Your task to perform on an android device: create a new album in the google photos Image 0: 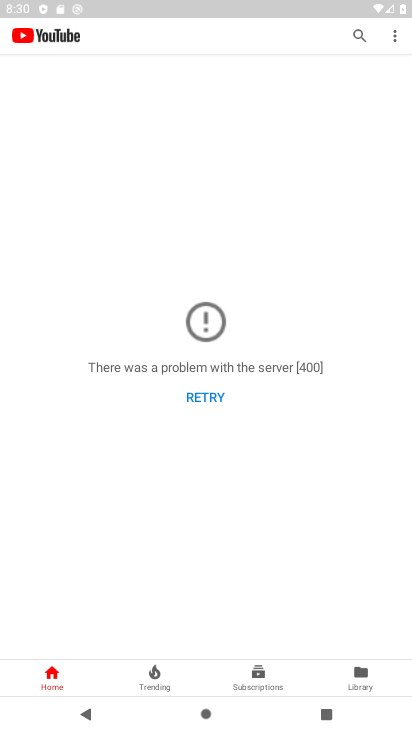
Step 0: press home button
Your task to perform on an android device: create a new album in the google photos Image 1: 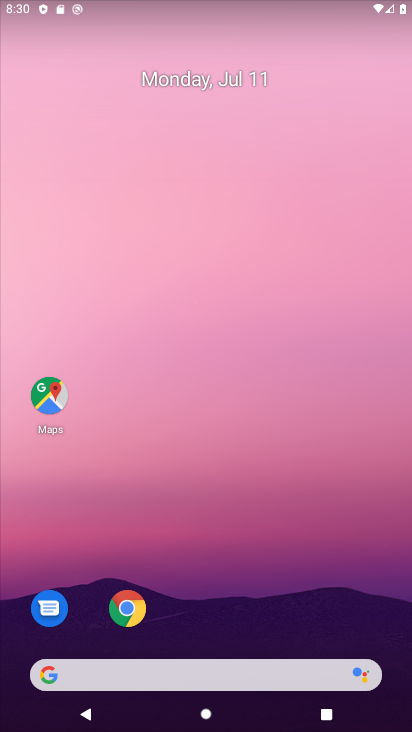
Step 1: click (190, 127)
Your task to perform on an android device: create a new album in the google photos Image 2: 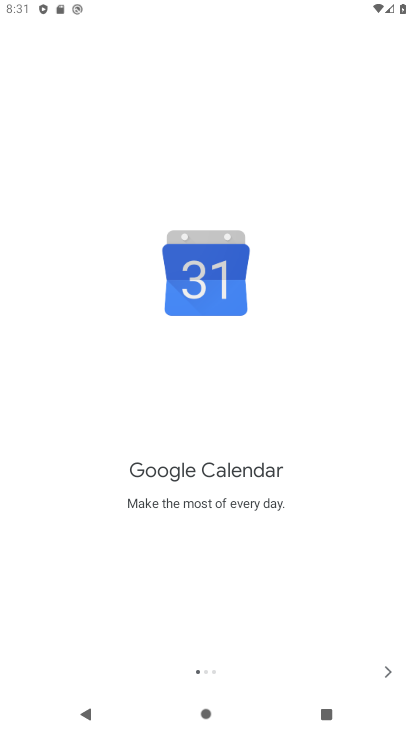
Step 2: click (390, 671)
Your task to perform on an android device: create a new album in the google photos Image 3: 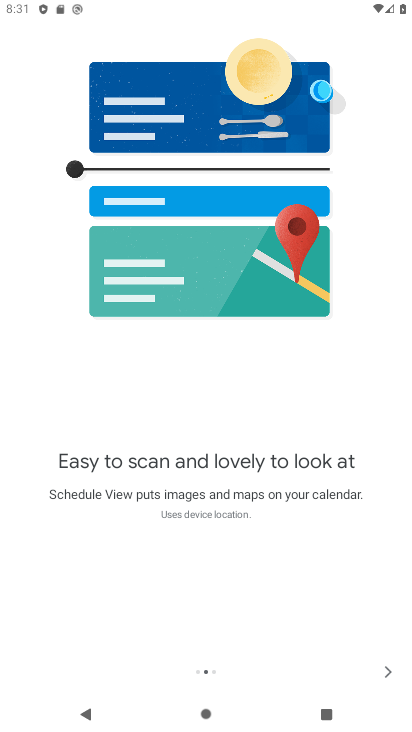
Step 3: click (390, 671)
Your task to perform on an android device: create a new album in the google photos Image 4: 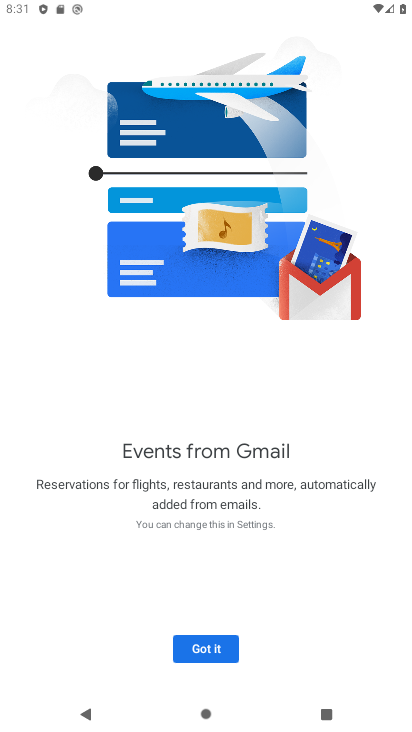
Step 4: click (390, 671)
Your task to perform on an android device: create a new album in the google photos Image 5: 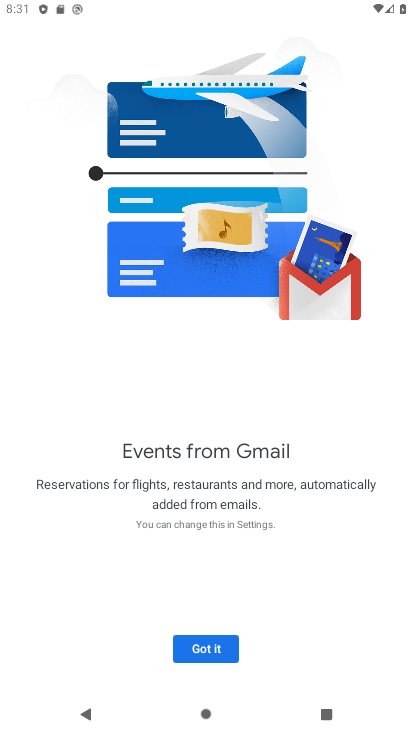
Step 5: click (186, 651)
Your task to perform on an android device: create a new album in the google photos Image 6: 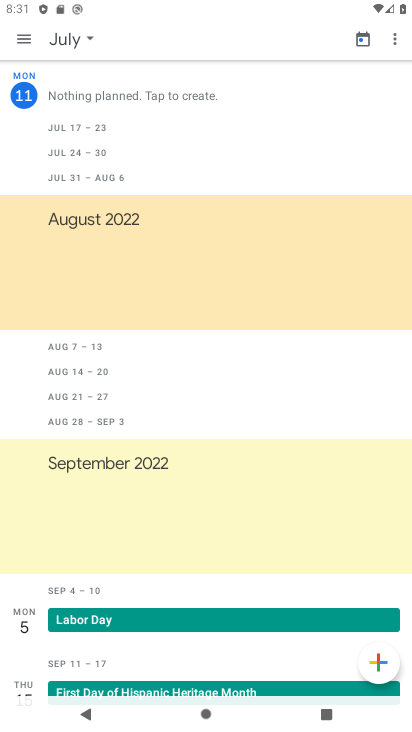
Step 6: press home button
Your task to perform on an android device: create a new album in the google photos Image 7: 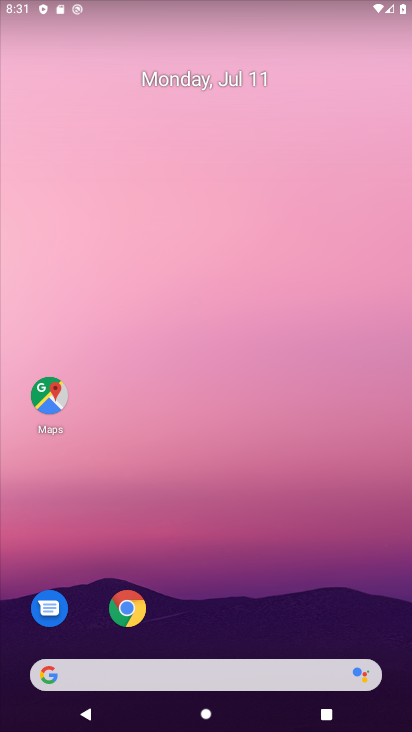
Step 7: drag from (206, 571) to (206, 27)
Your task to perform on an android device: create a new album in the google photos Image 8: 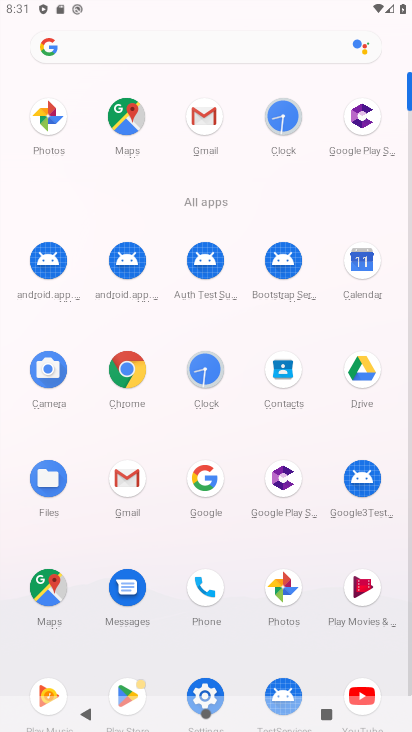
Step 8: click (288, 590)
Your task to perform on an android device: create a new album in the google photos Image 9: 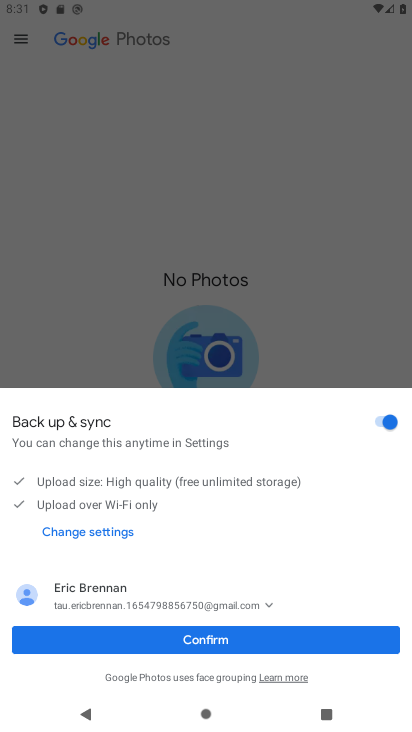
Step 9: click (220, 638)
Your task to perform on an android device: create a new album in the google photos Image 10: 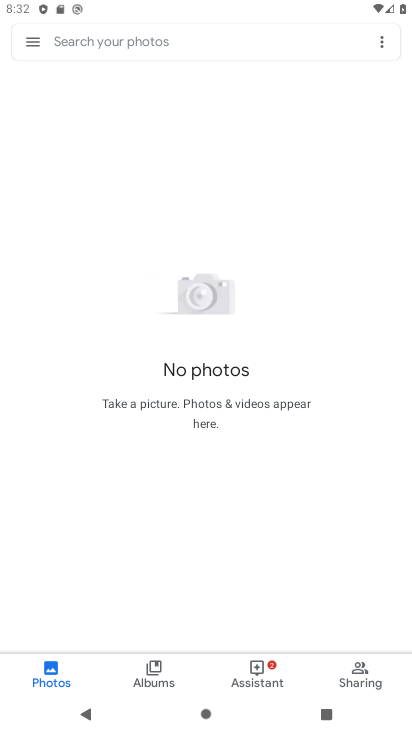
Step 10: click (155, 691)
Your task to perform on an android device: create a new album in the google photos Image 11: 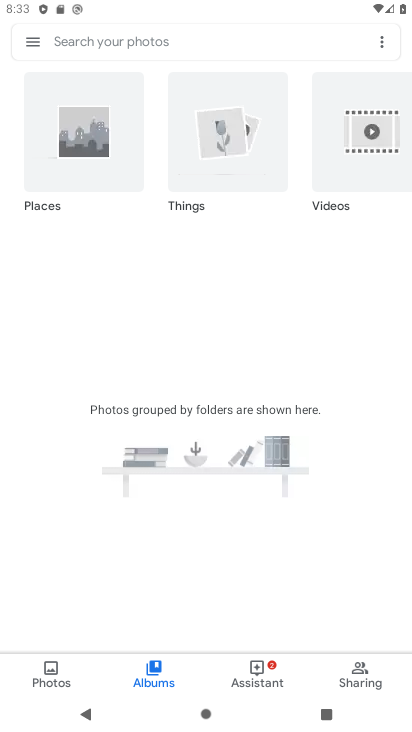
Step 11: click (383, 39)
Your task to perform on an android device: create a new album in the google photos Image 12: 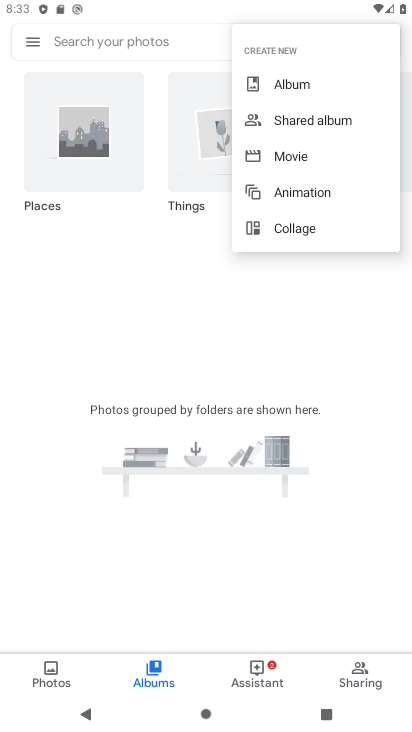
Step 12: click (297, 90)
Your task to perform on an android device: create a new album in the google photos Image 13: 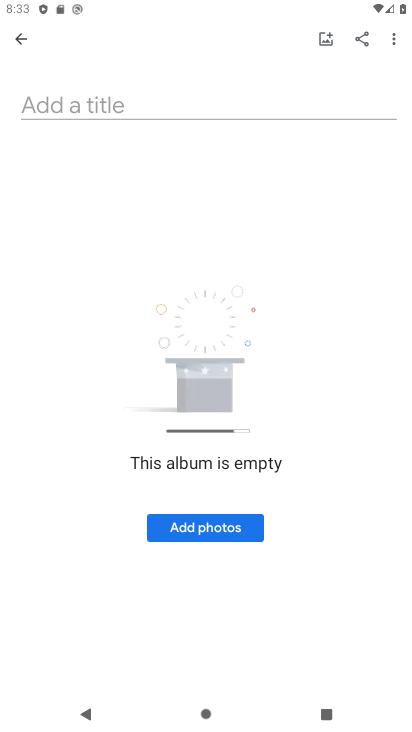
Step 13: click (233, 107)
Your task to perform on an android device: create a new album in the google photos Image 14: 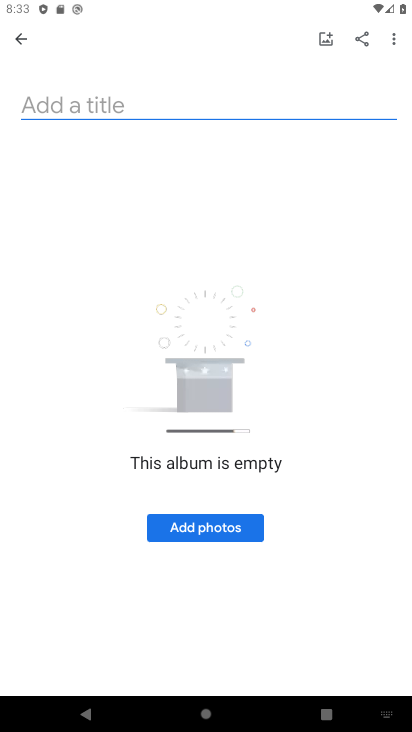
Step 14: type "Supremo"
Your task to perform on an android device: create a new album in the google photos Image 15: 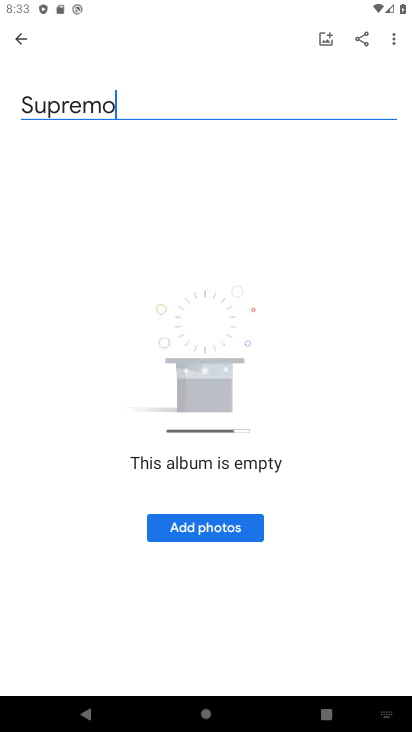
Step 15: click (194, 522)
Your task to perform on an android device: create a new album in the google photos Image 16: 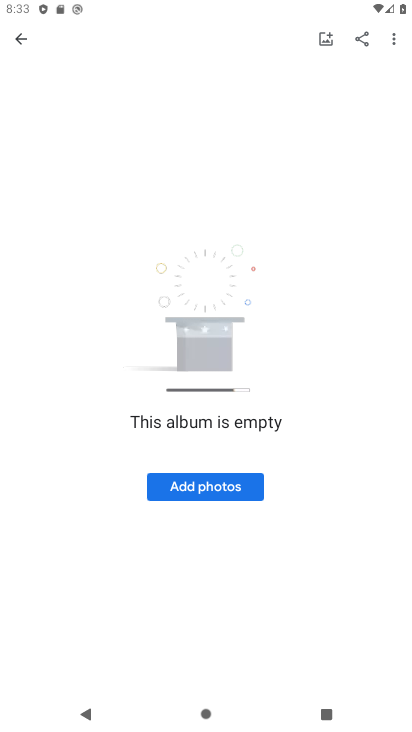
Step 16: click (193, 490)
Your task to perform on an android device: create a new album in the google photos Image 17: 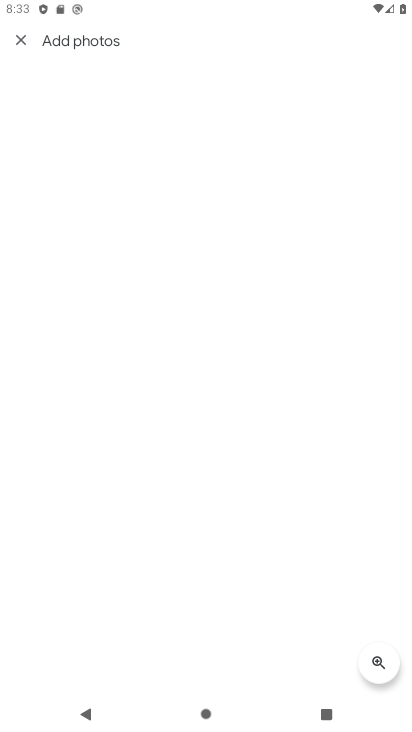
Step 17: task complete